Your task to perform on an android device: Go to network settings Image 0: 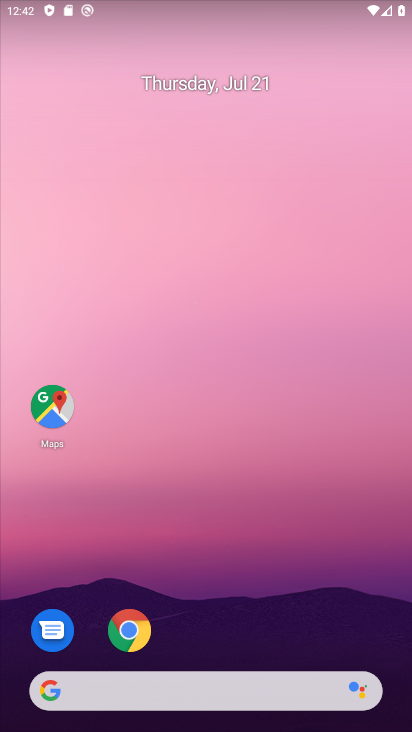
Step 0: drag from (223, 9) to (93, 619)
Your task to perform on an android device: Go to network settings Image 1: 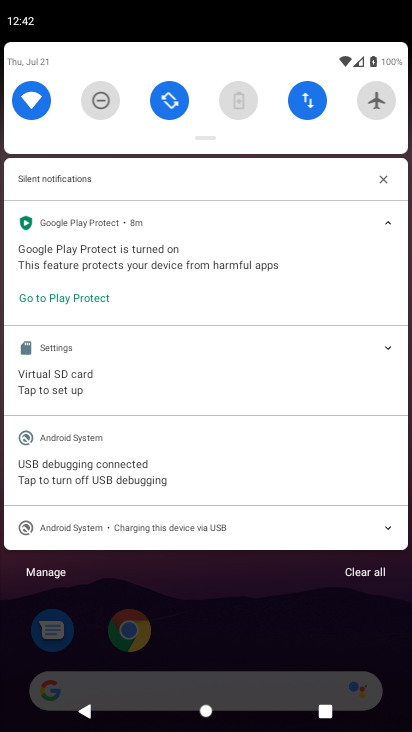
Step 1: click (313, 100)
Your task to perform on an android device: Go to network settings Image 2: 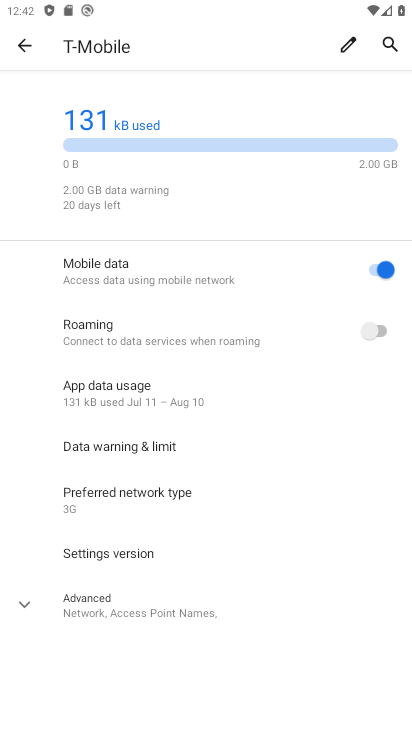
Step 2: task complete